Your task to perform on an android device: Open ESPN.com Image 0: 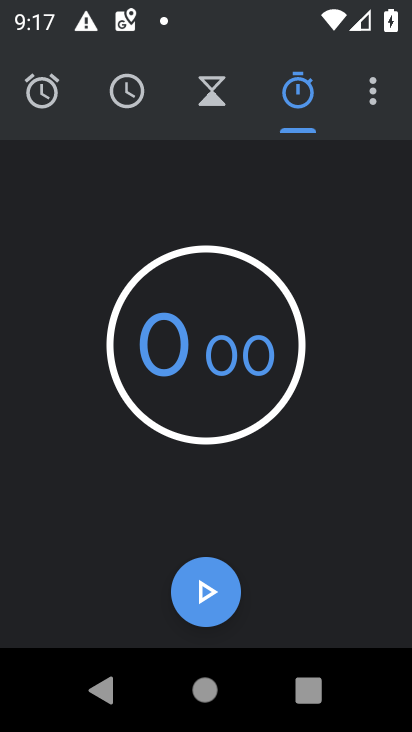
Step 0: press home button
Your task to perform on an android device: Open ESPN.com Image 1: 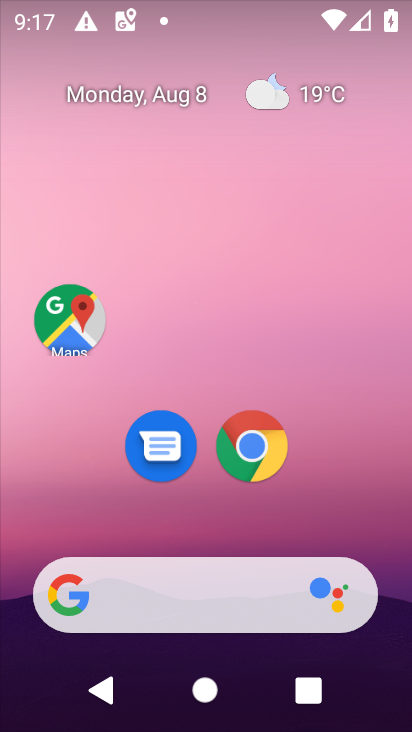
Step 1: click (245, 445)
Your task to perform on an android device: Open ESPN.com Image 2: 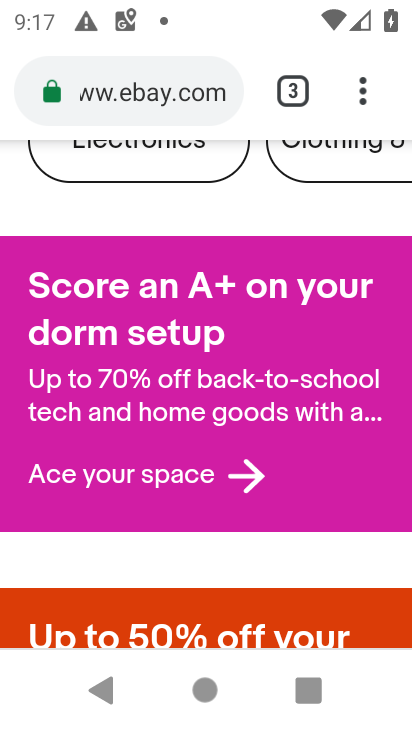
Step 2: drag from (281, 227) to (254, 397)
Your task to perform on an android device: Open ESPN.com Image 3: 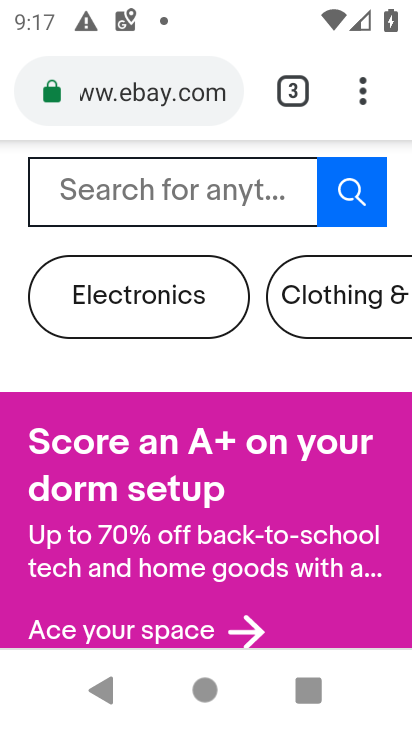
Step 3: click (232, 83)
Your task to perform on an android device: Open ESPN.com Image 4: 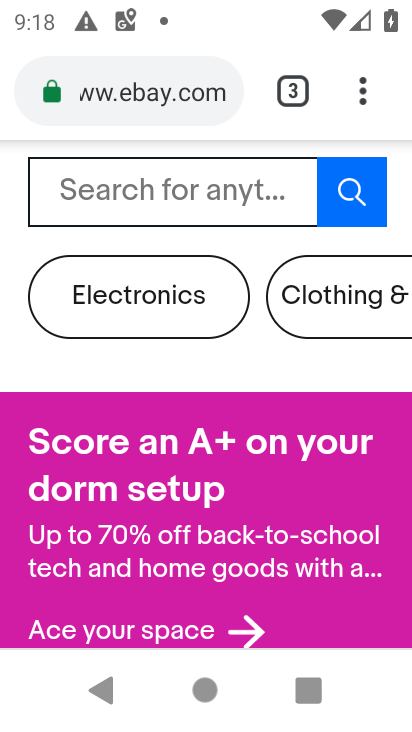
Step 4: click (198, 73)
Your task to perform on an android device: Open ESPN.com Image 5: 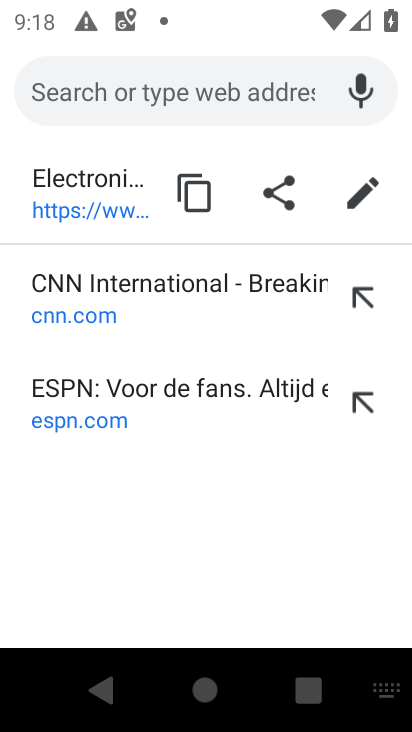
Step 5: type "espn.com"
Your task to perform on an android device: Open ESPN.com Image 6: 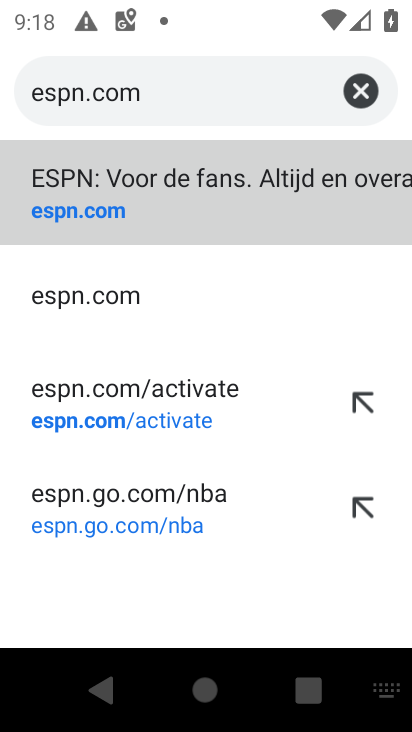
Step 6: click (106, 160)
Your task to perform on an android device: Open ESPN.com Image 7: 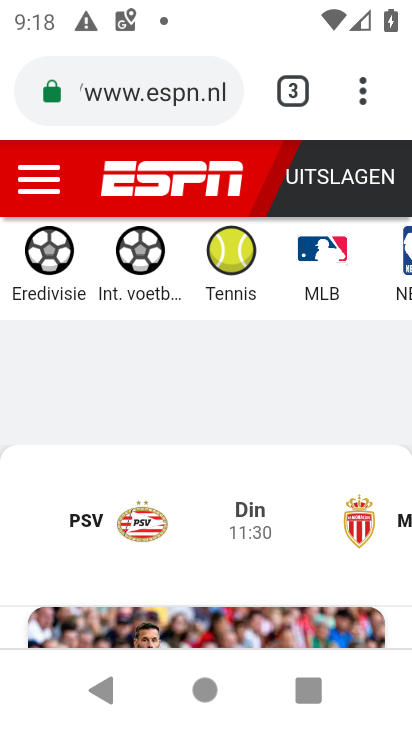
Step 7: task complete